Your task to perform on an android device: Go to Android settings Image 0: 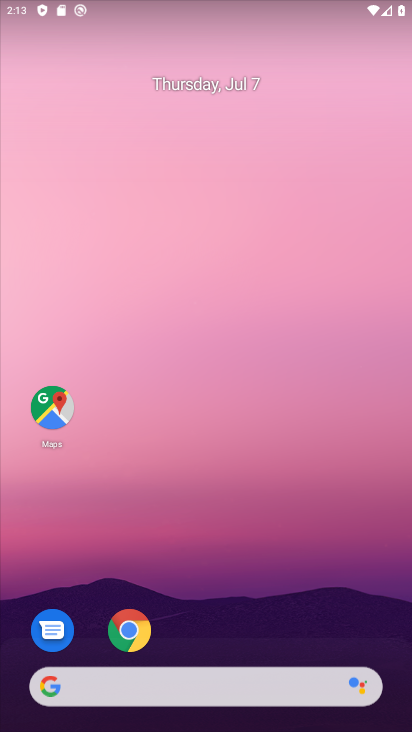
Step 0: drag from (257, 564) to (314, 300)
Your task to perform on an android device: Go to Android settings Image 1: 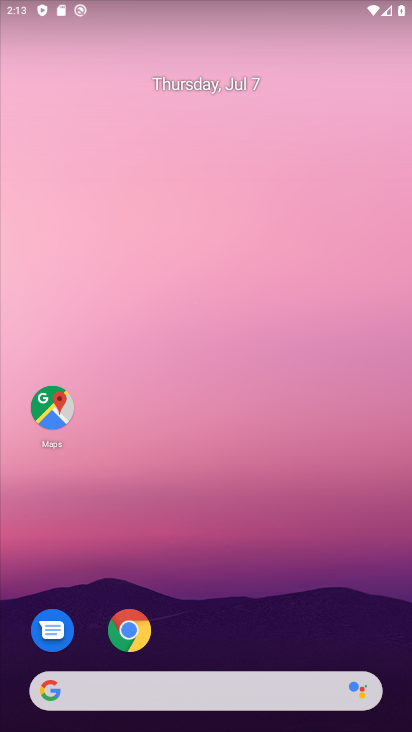
Step 1: drag from (230, 665) to (308, 144)
Your task to perform on an android device: Go to Android settings Image 2: 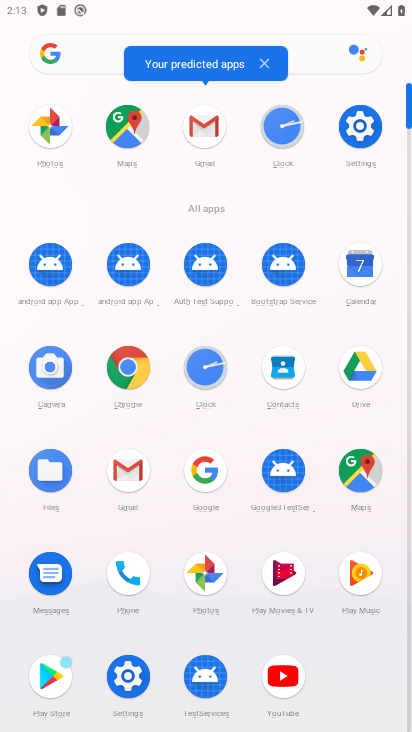
Step 2: click (127, 674)
Your task to perform on an android device: Go to Android settings Image 3: 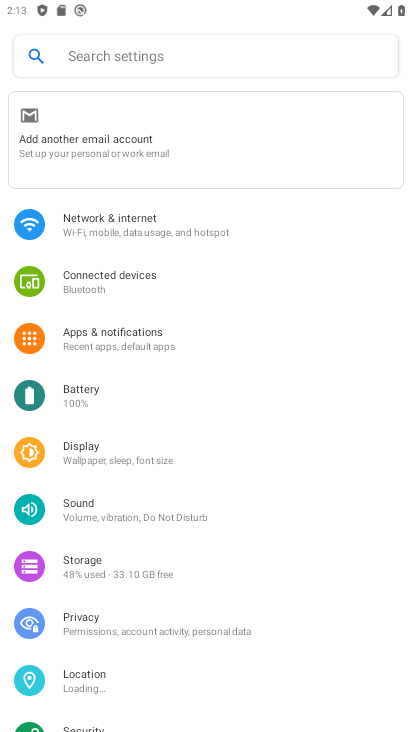
Step 3: task complete